Your task to perform on an android device: Clear the cart on newegg. Image 0: 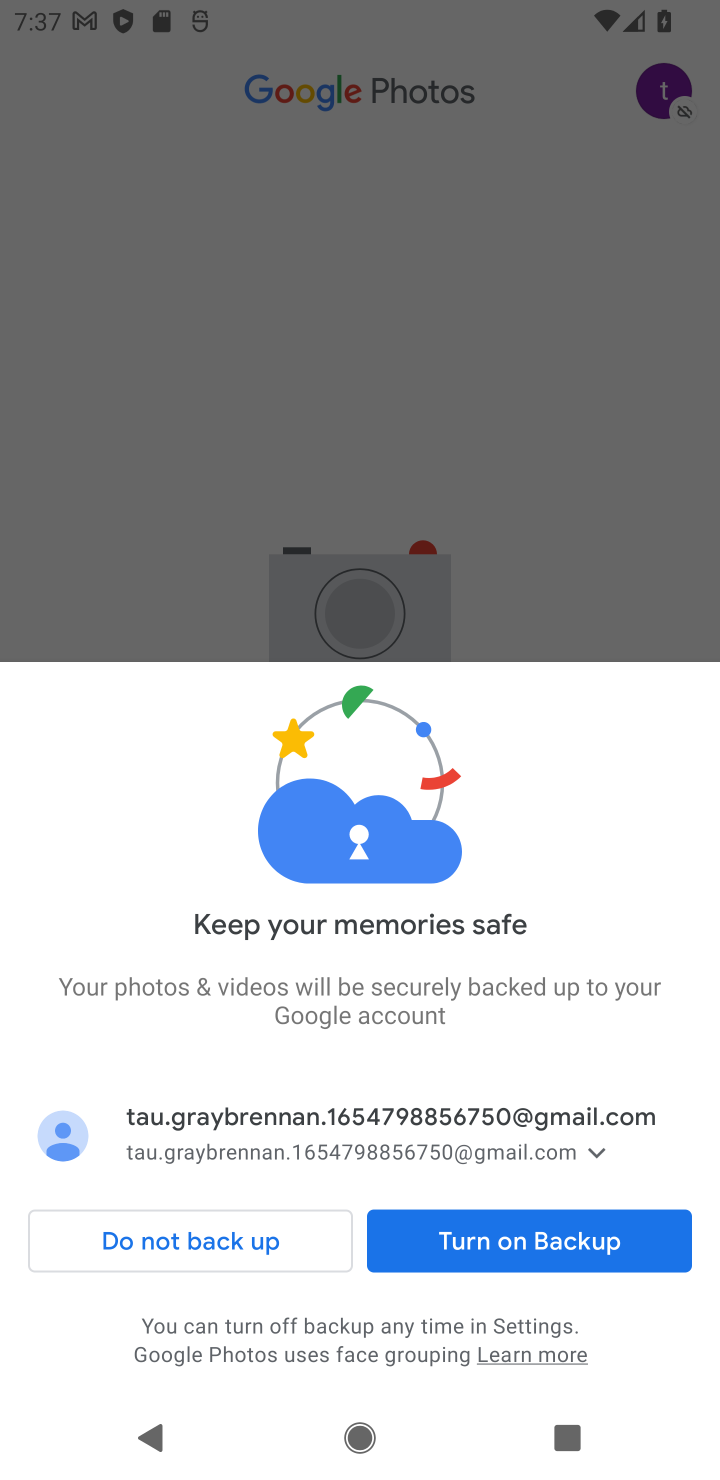
Step 0: press home button
Your task to perform on an android device: Clear the cart on newegg. Image 1: 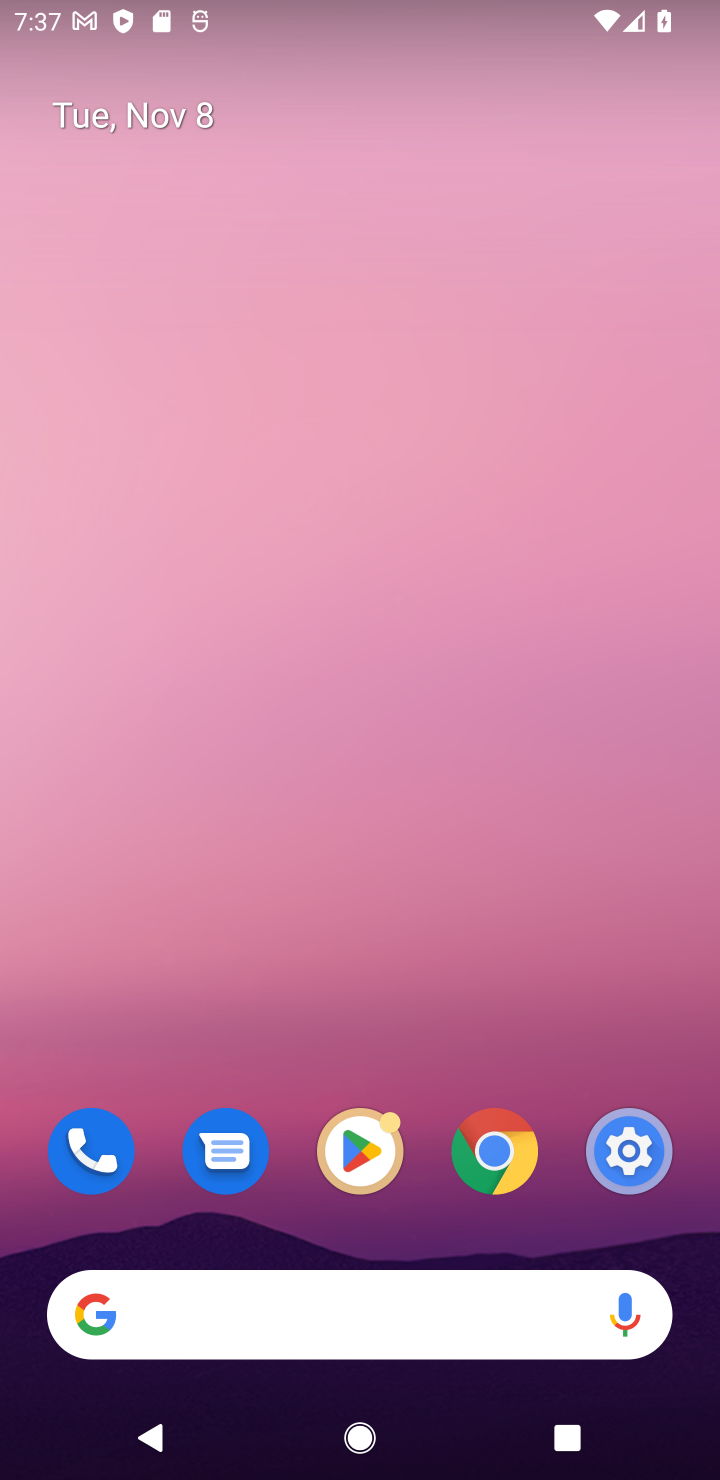
Step 1: click (447, 1312)
Your task to perform on an android device: Clear the cart on newegg. Image 2: 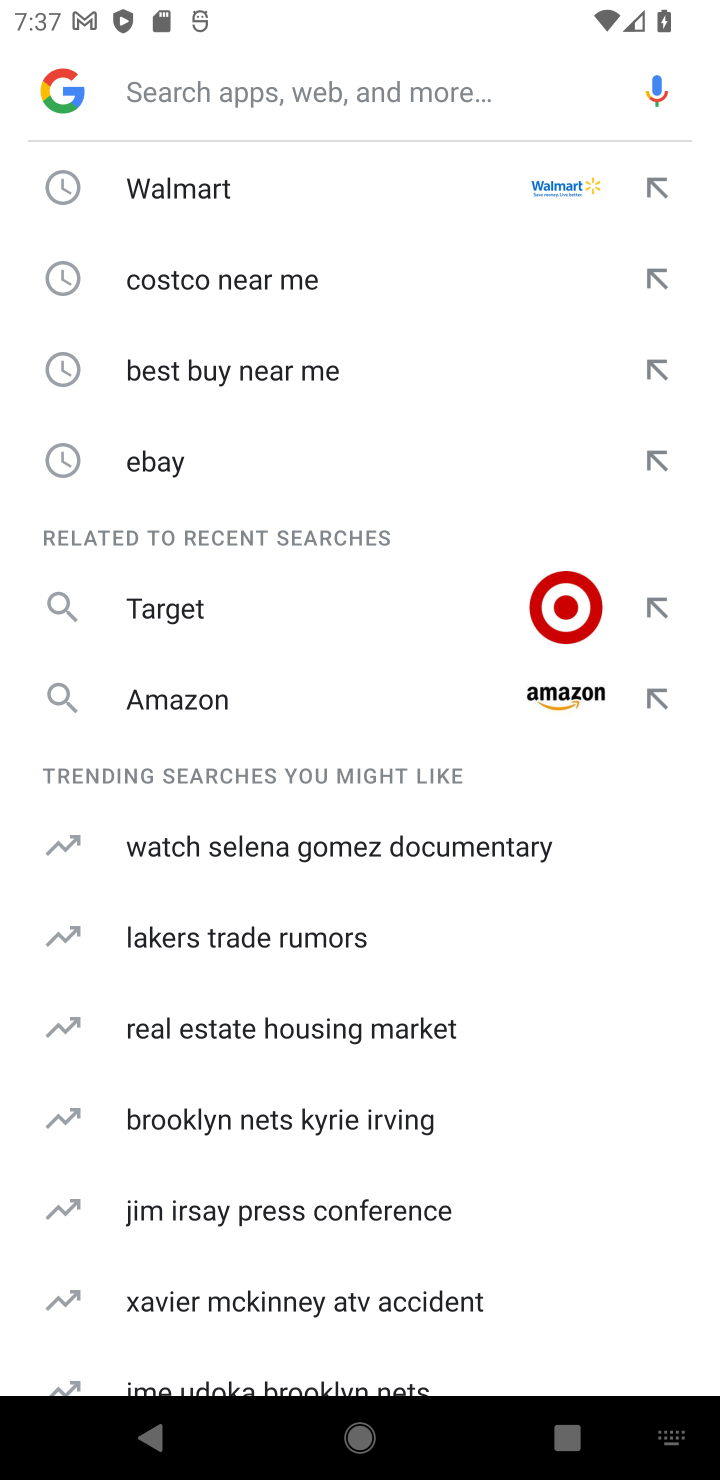
Step 2: type "newegg\"
Your task to perform on an android device: Clear the cart on newegg. Image 3: 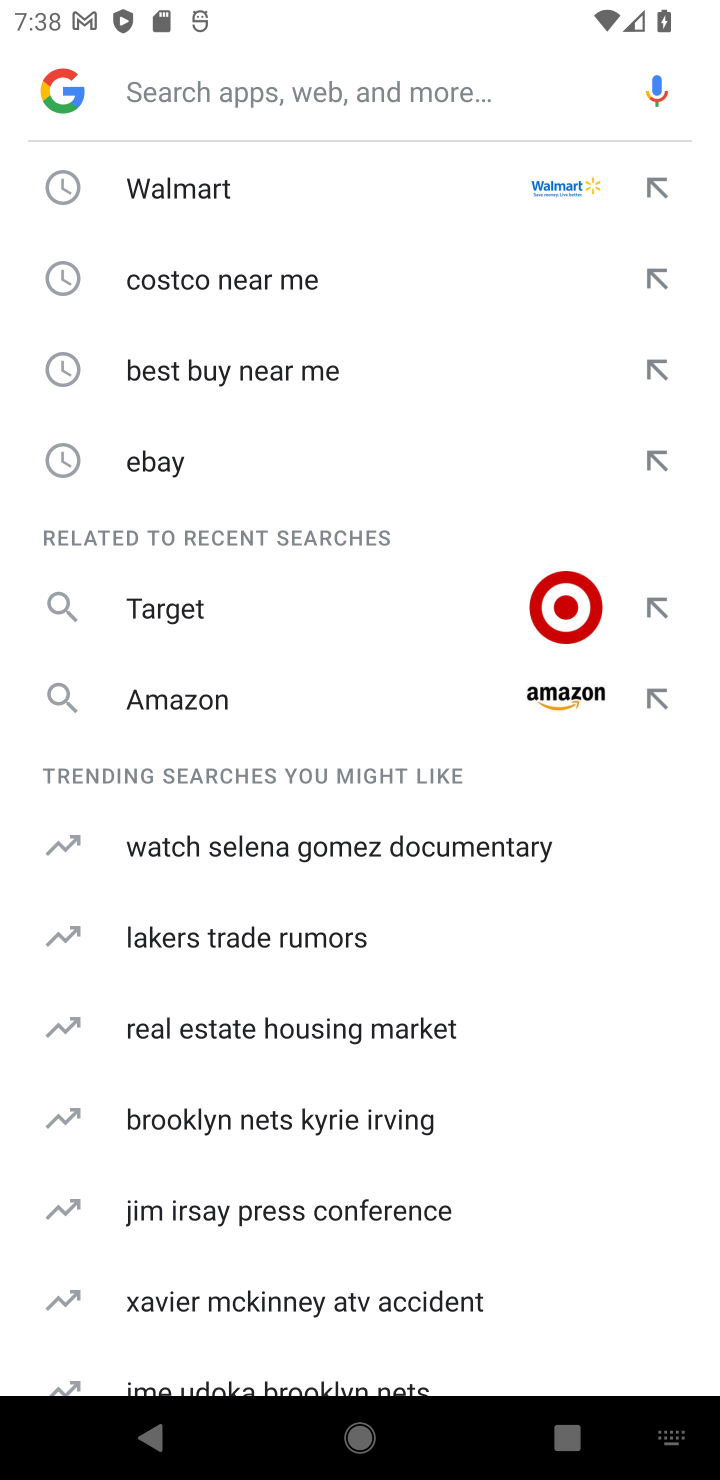
Step 3: type "newegg"
Your task to perform on an android device: Clear the cart on newegg. Image 4: 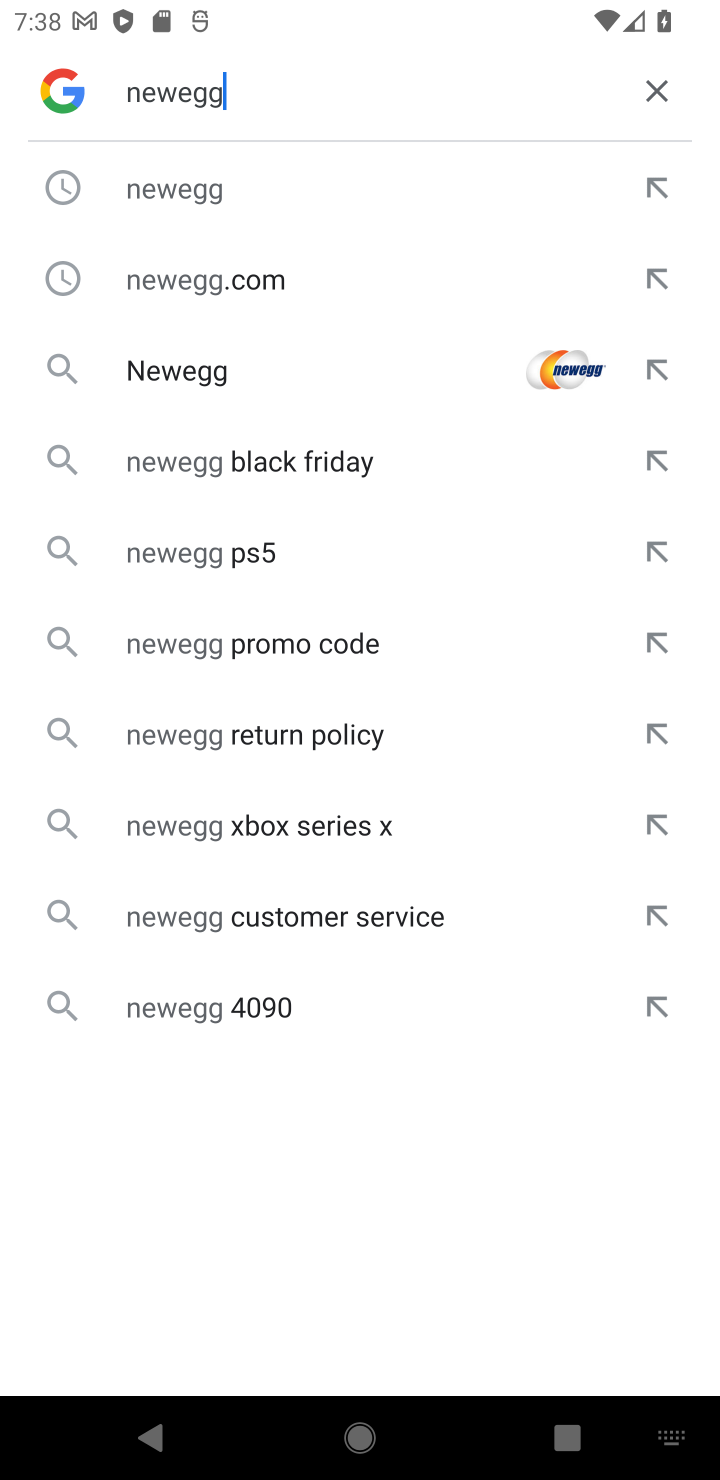
Step 4: click (286, 365)
Your task to perform on an android device: Clear the cart on newegg. Image 5: 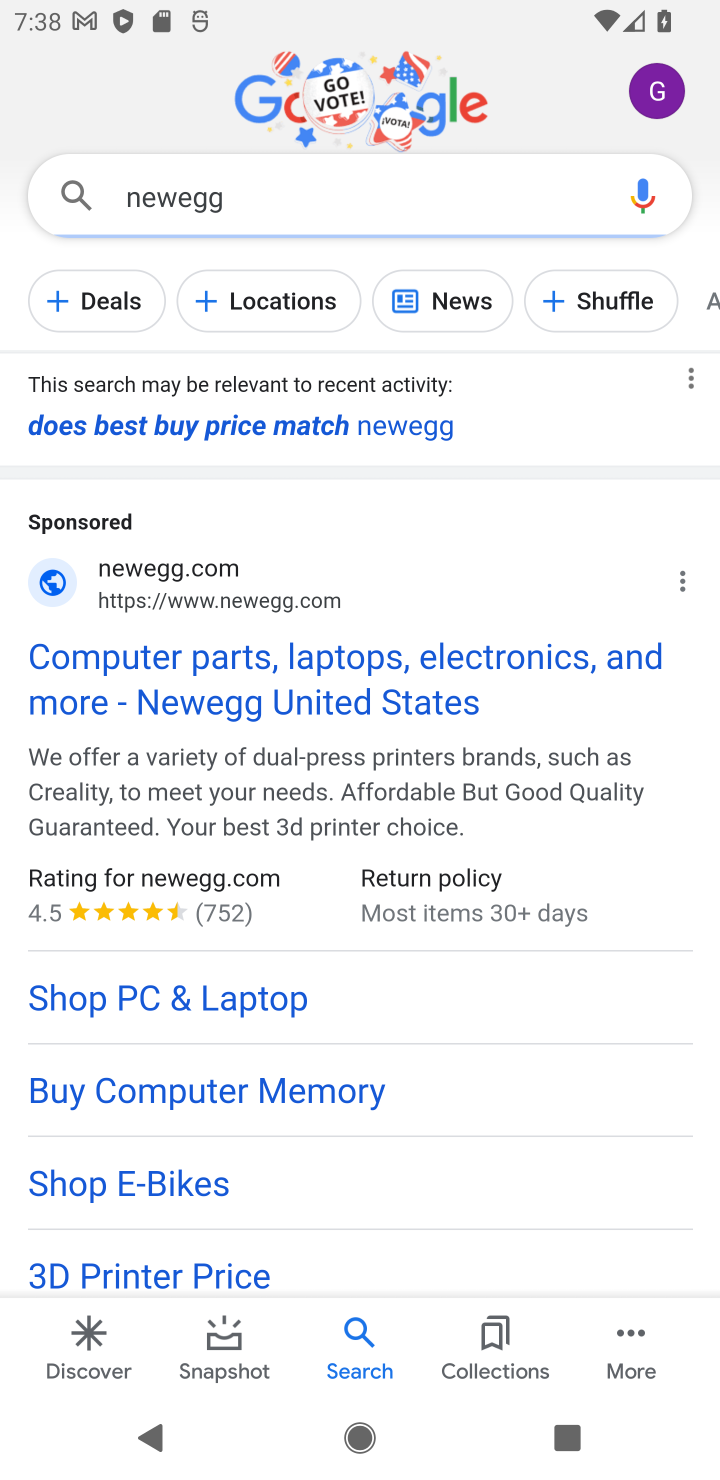
Step 5: click (314, 653)
Your task to perform on an android device: Clear the cart on newegg. Image 6: 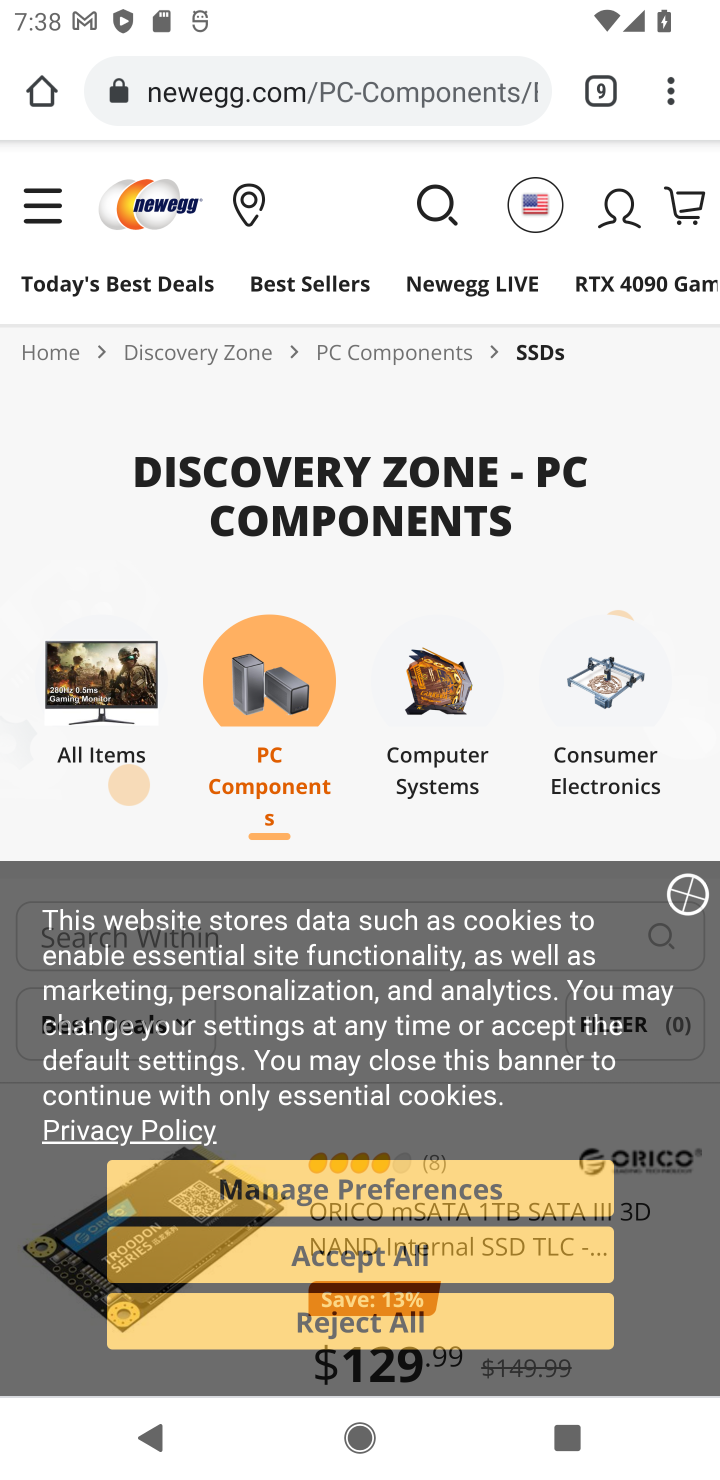
Step 6: task complete